Your task to perform on an android device: see tabs open on other devices in the chrome app Image 0: 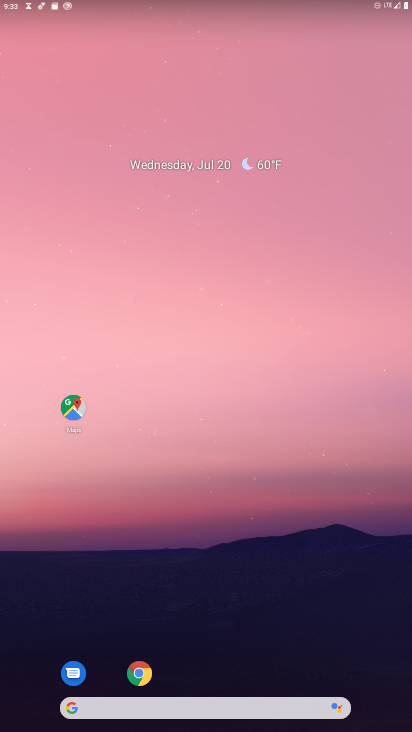
Step 0: click (134, 671)
Your task to perform on an android device: see tabs open on other devices in the chrome app Image 1: 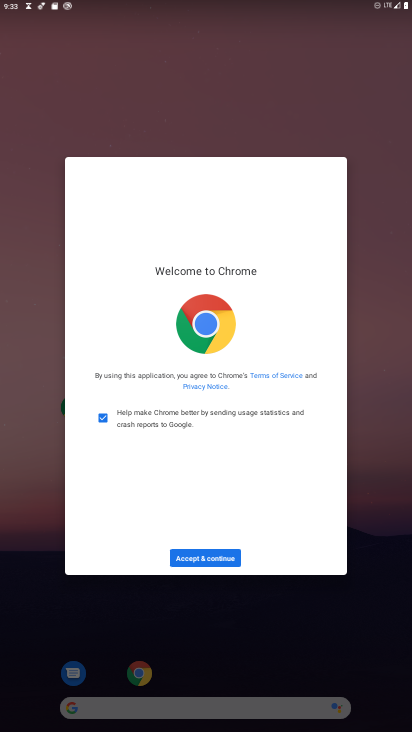
Step 1: click (207, 560)
Your task to perform on an android device: see tabs open on other devices in the chrome app Image 2: 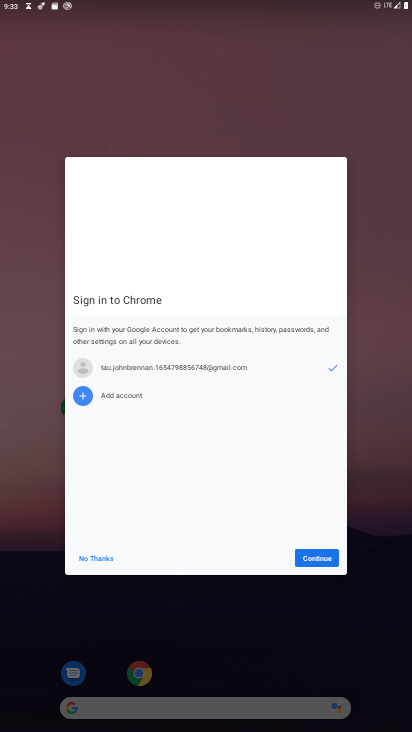
Step 2: click (307, 560)
Your task to perform on an android device: see tabs open on other devices in the chrome app Image 3: 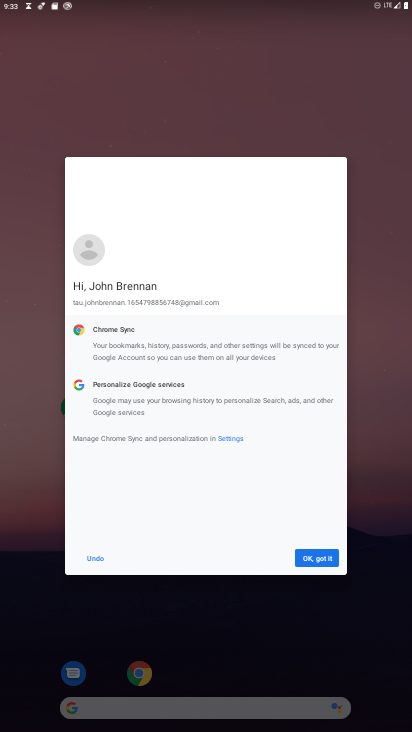
Step 3: click (307, 560)
Your task to perform on an android device: see tabs open on other devices in the chrome app Image 4: 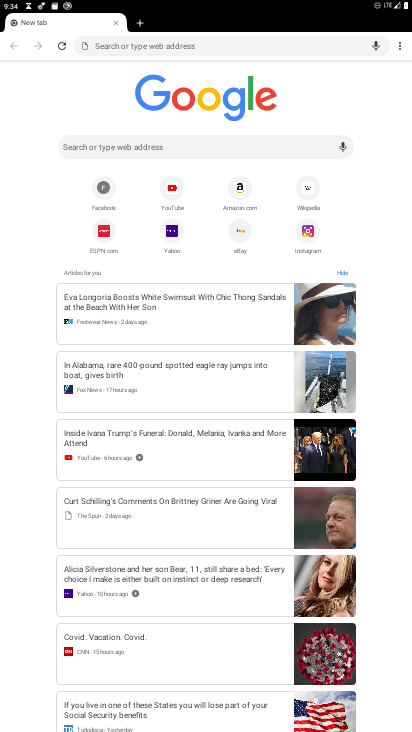
Step 4: click (396, 45)
Your task to perform on an android device: see tabs open on other devices in the chrome app Image 5: 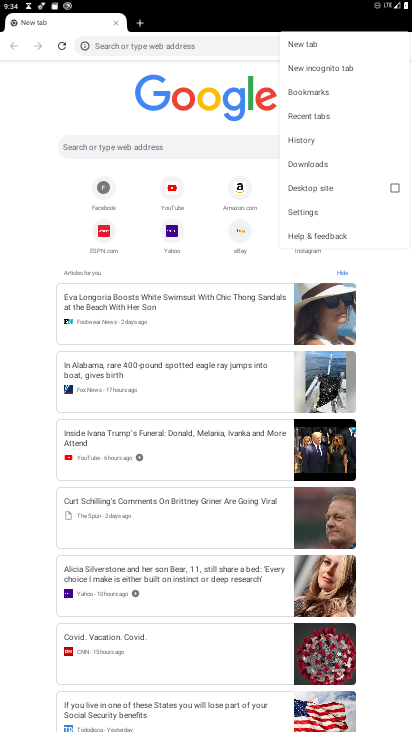
Step 5: click (318, 117)
Your task to perform on an android device: see tabs open on other devices in the chrome app Image 6: 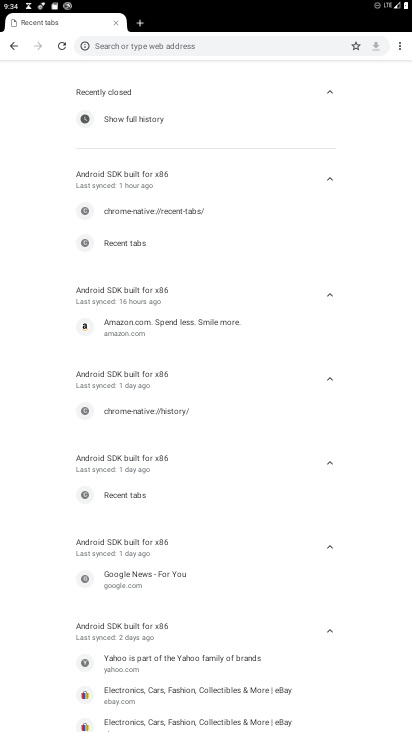
Step 6: task complete